Your task to perform on an android device: see sites visited before in the chrome app Image 0: 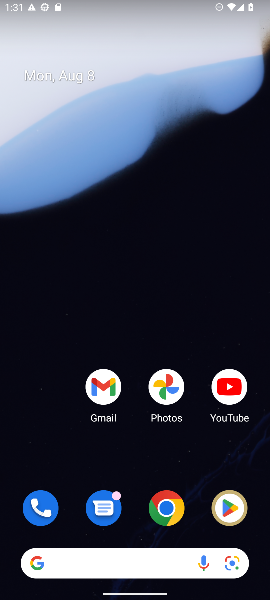
Step 0: click (162, 511)
Your task to perform on an android device: see sites visited before in the chrome app Image 1: 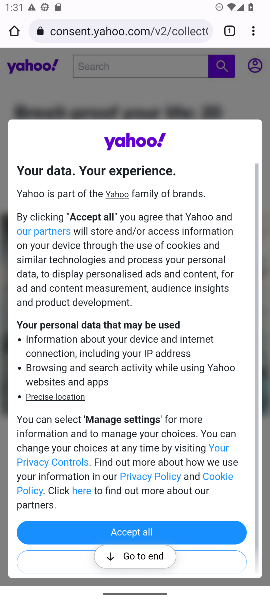
Step 1: click (255, 36)
Your task to perform on an android device: see sites visited before in the chrome app Image 2: 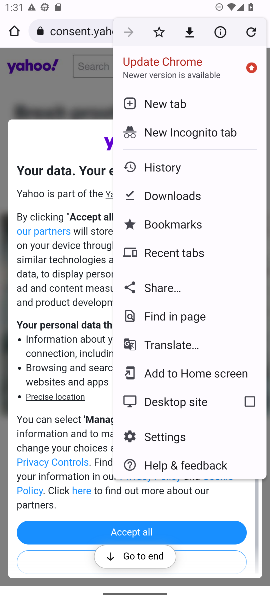
Step 2: click (167, 172)
Your task to perform on an android device: see sites visited before in the chrome app Image 3: 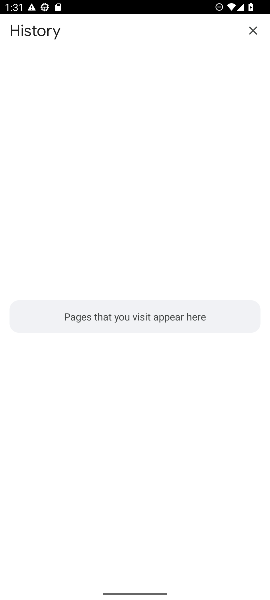
Step 3: task complete